Your task to perform on an android device: Open the map Image 0: 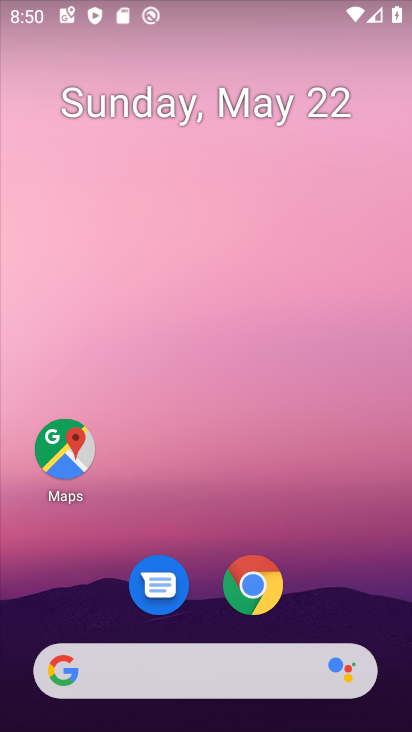
Step 0: click (62, 440)
Your task to perform on an android device: Open the map Image 1: 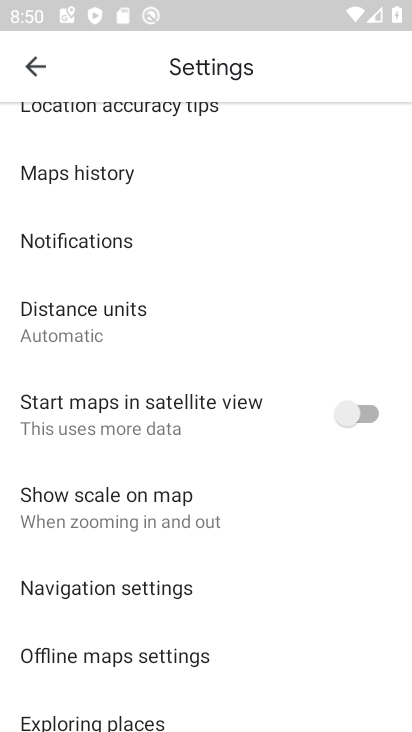
Step 1: click (41, 61)
Your task to perform on an android device: Open the map Image 2: 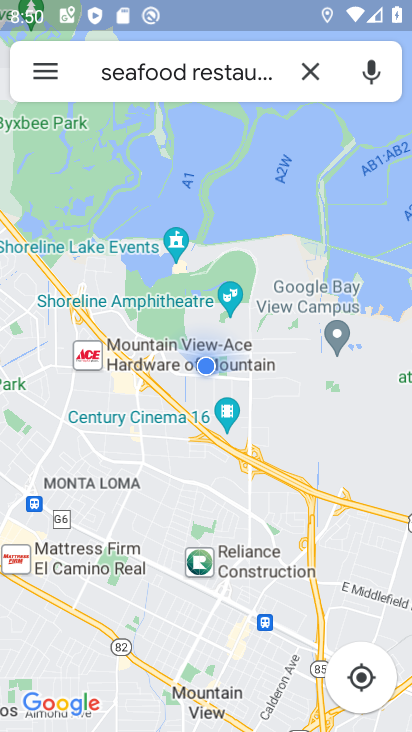
Step 2: click (306, 65)
Your task to perform on an android device: Open the map Image 3: 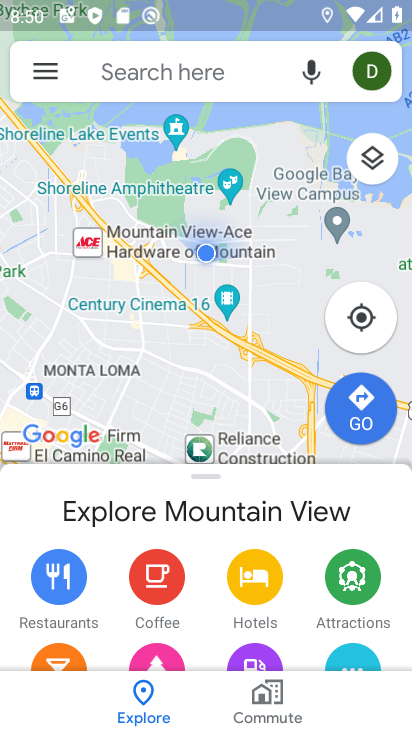
Step 3: task complete